Your task to perform on an android device: When is my next meeting? Image 0: 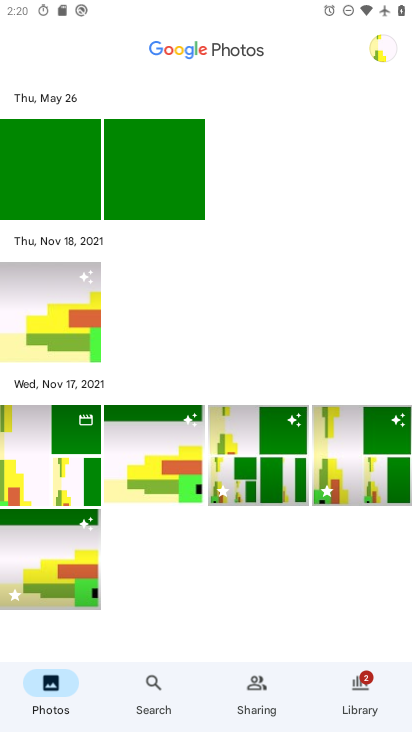
Step 0: press home button
Your task to perform on an android device: When is my next meeting? Image 1: 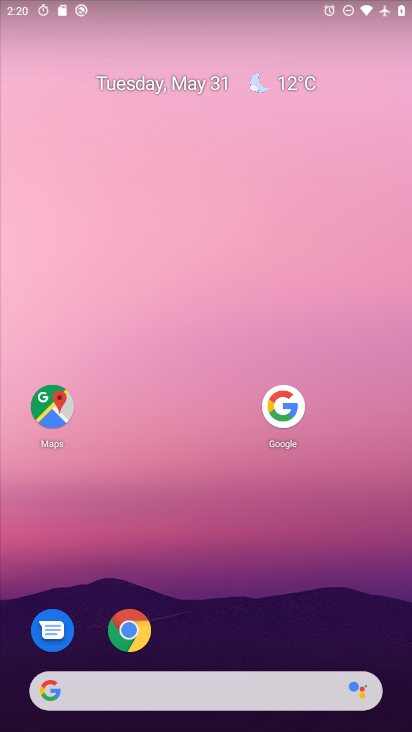
Step 1: drag from (84, 690) to (218, 226)
Your task to perform on an android device: When is my next meeting? Image 2: 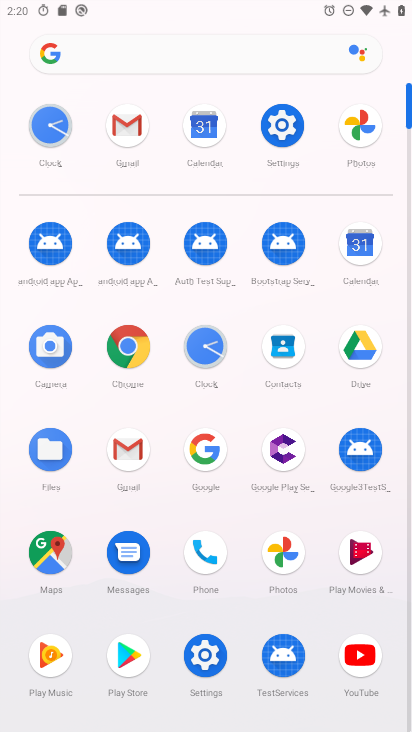
Step 2: click (365, 254)
Your task to perform on an android device: When is my next meeting? Image 3: 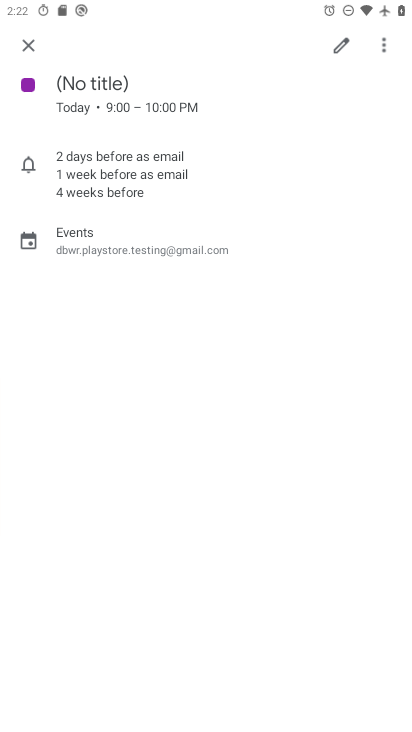
Step 3: task complete